Your task to perform on an android device: toggle show notifications on the lock screen Image 0: 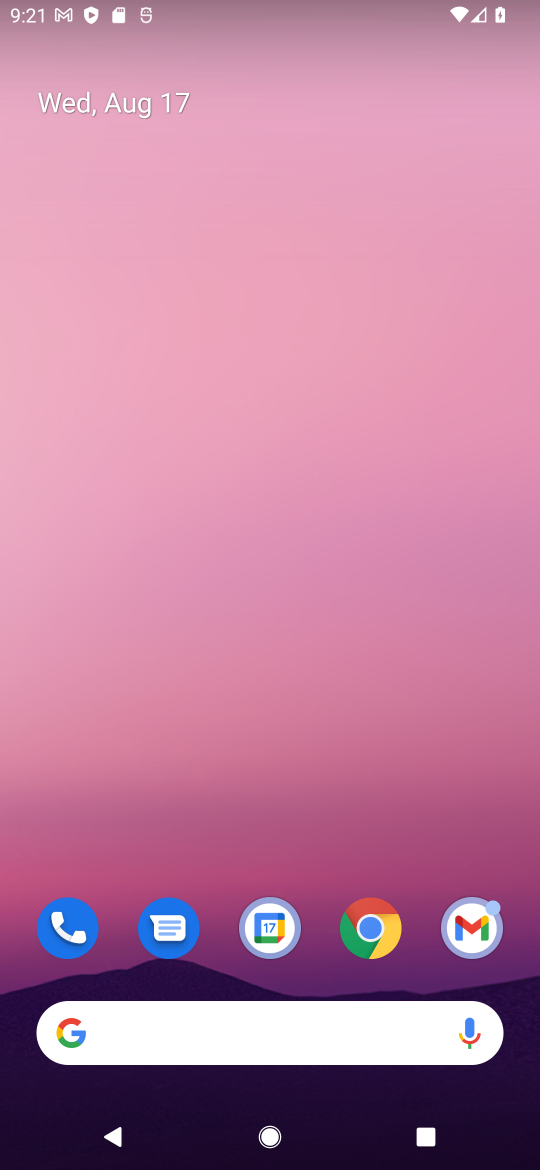
Step 0: drag from (355, 862) to (281, 22)
Your task to perform on an android device: toggle show notifications on the lock screen Image 1: 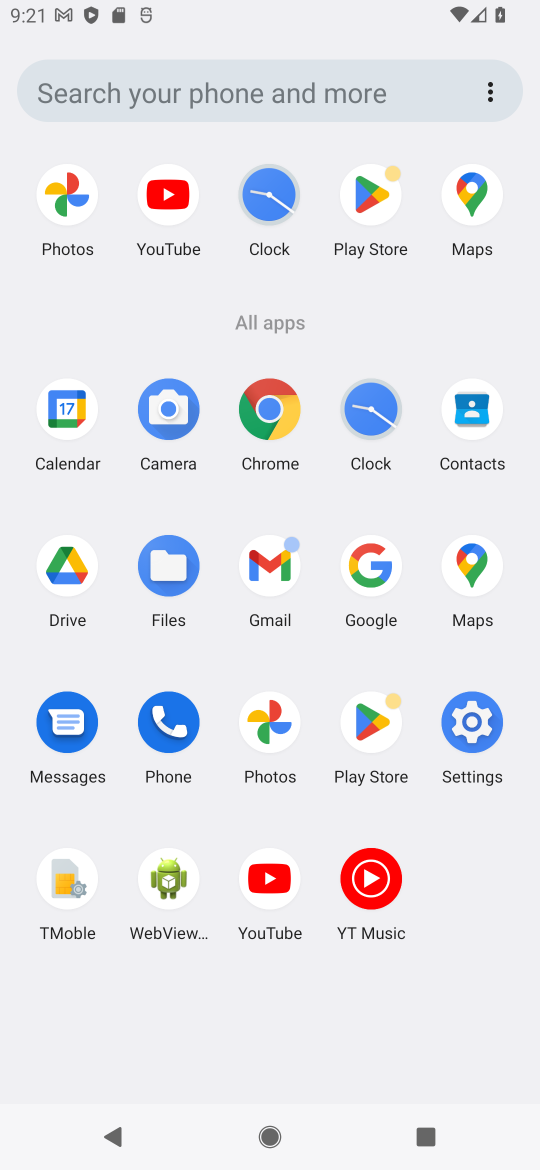
Step 1: click (481, 736)
Your task to perform on an android device: toggle show notifications on the lock screen Image 2: 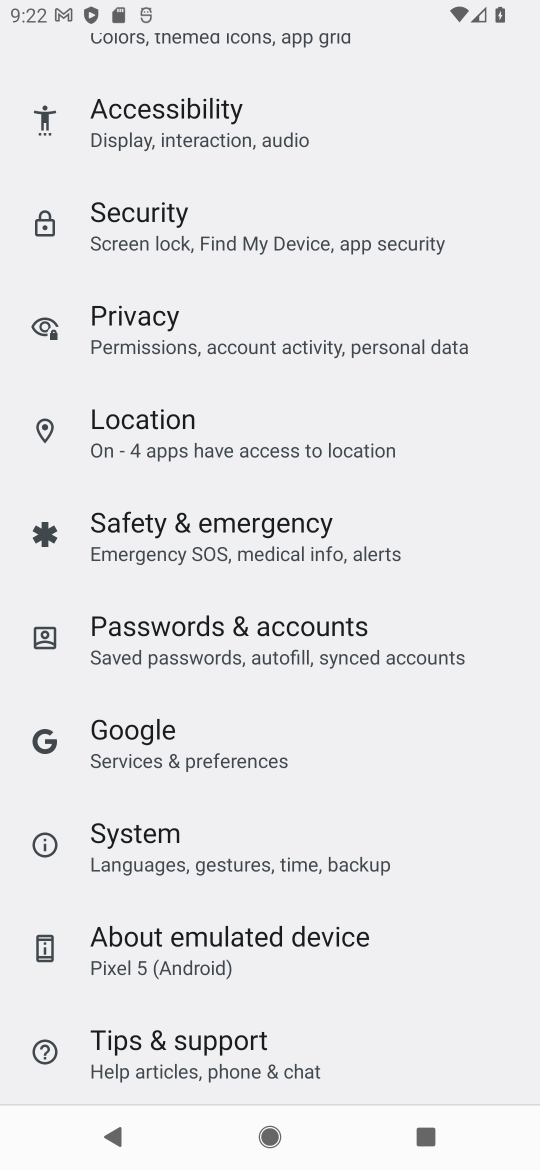
Step 2: drag from (257, 256) to (342, 1015)
Your task to perform on an android device: toggle show notifications on the lock screen Image 3: 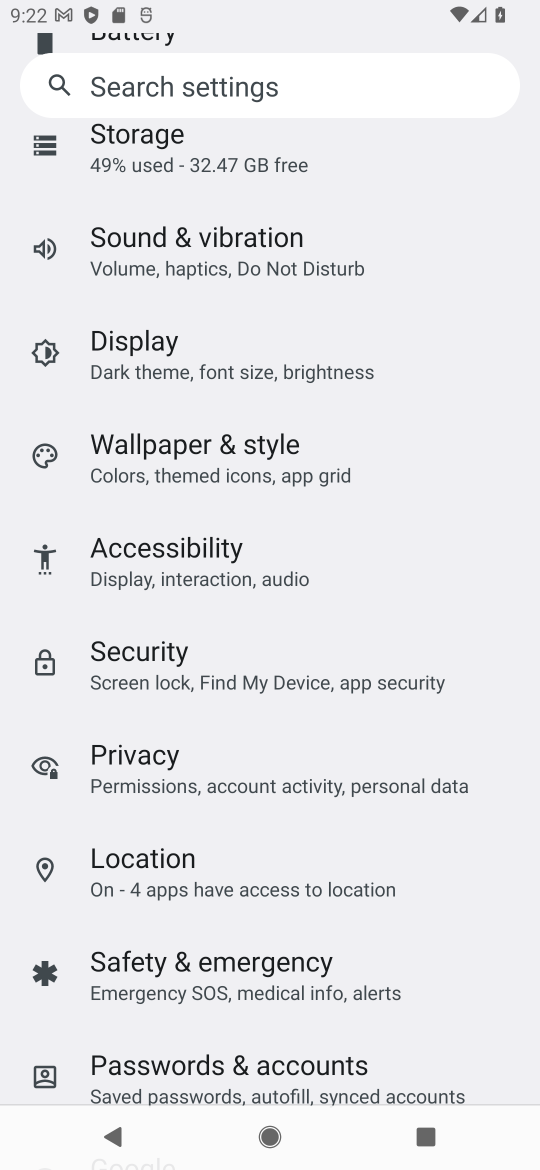
Step 3: drag from (255, 272) to (343, 1126)
Your task to perform on an android device: toggle show notifications on the lock screen Image 4: 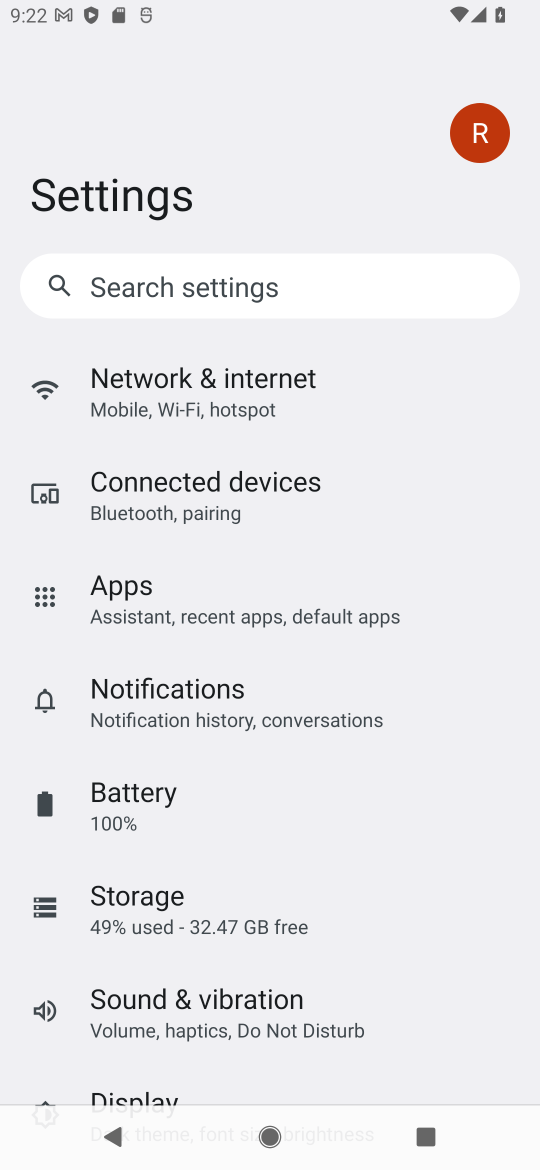
Step 4: click (255, 689)
Your task to perform on an android device: toggle show notifications on the lock screen Image 5: 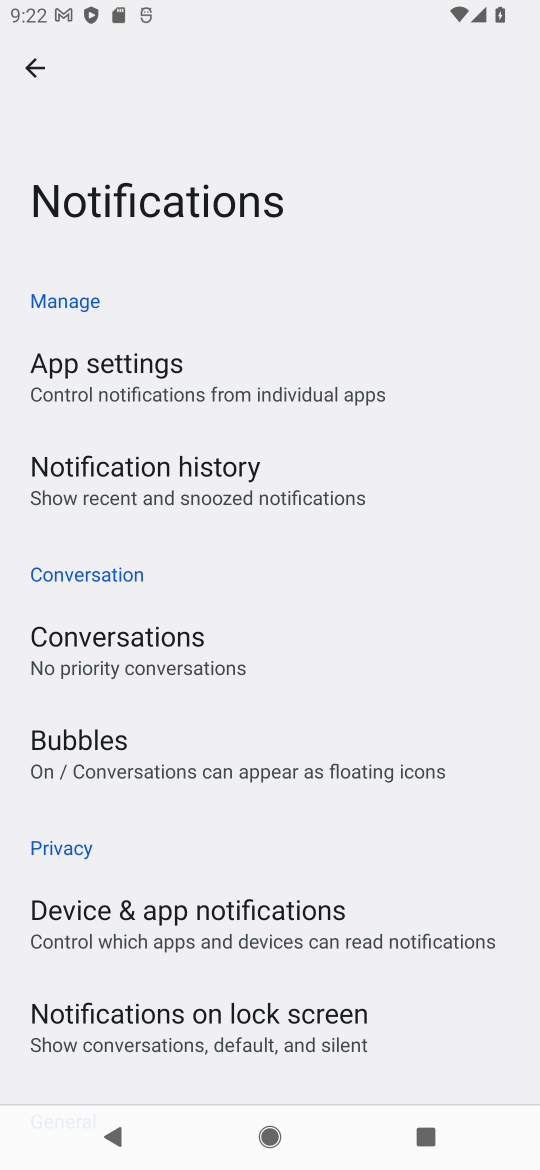
Step 5: click (347, 1019)
Your task to perform on an android device: toggle show notifications on the lock screen Image 6: 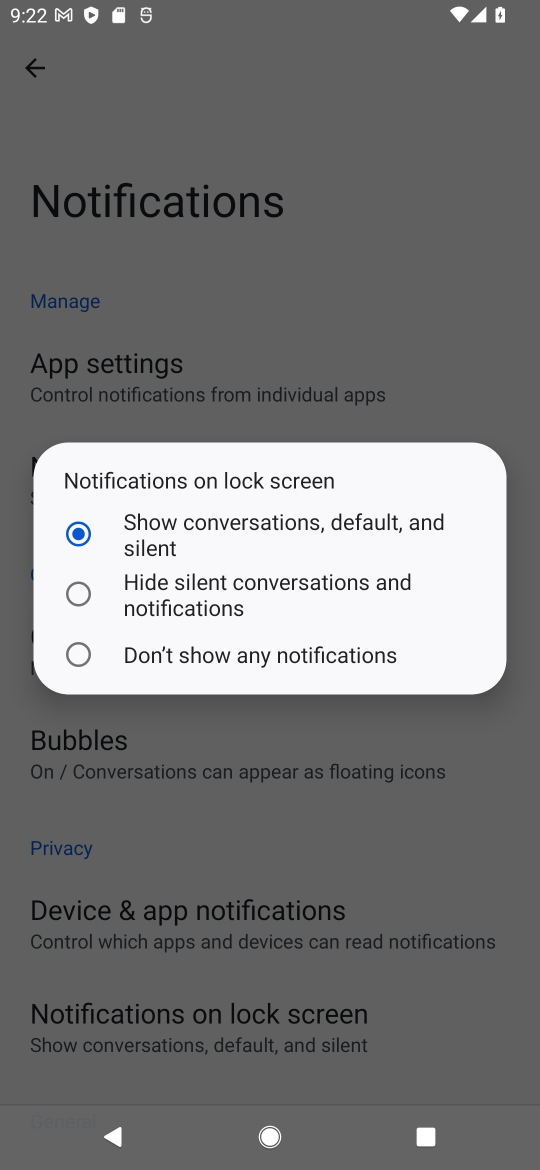
Step 6: click (78, 655)
Your task to perform on an android device: toggle show notifications on the lock screen Image 7: 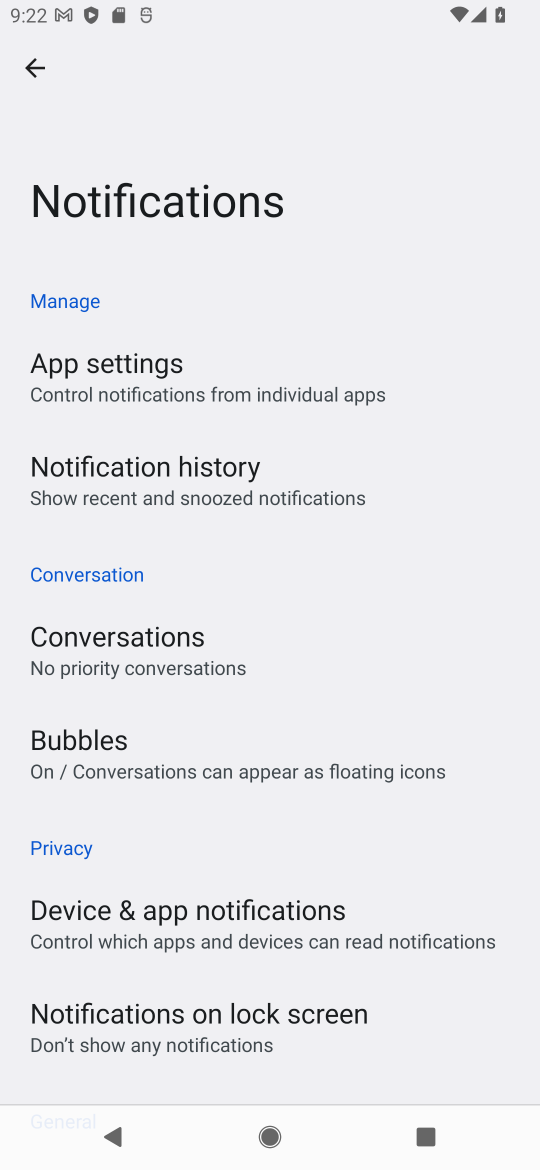
Step 7: task complete